Your task to perform on an android device: Go to display settings Image 0: 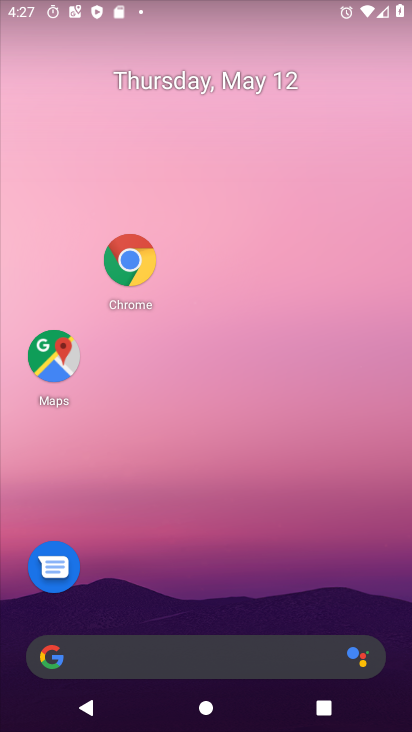
Step 0: drag from (228, 586) to (262, 238)
Your task to perform on an android device: Go to display settings Image 1: 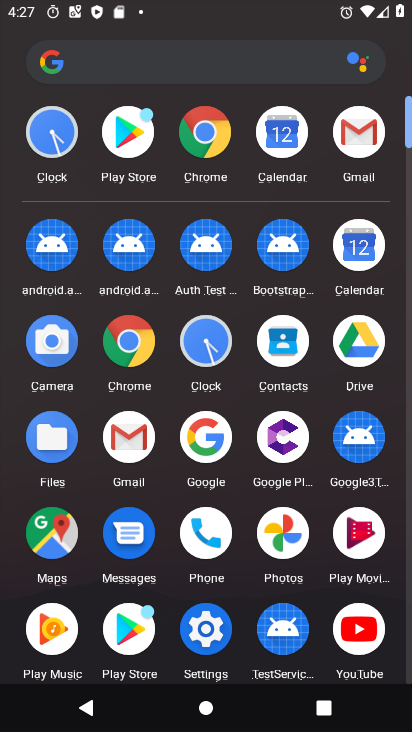
Step 1: click (201, 634)
Your task to perform on an android device: Go to display settings Image 2: 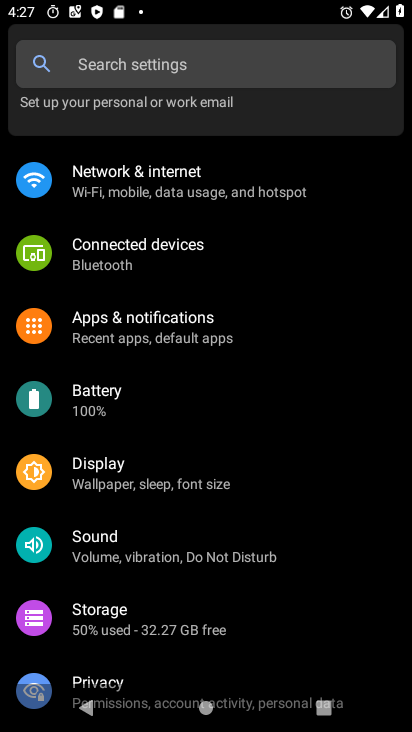
Step 2: click (134, 473)
Your task to perform on an android device: Go to display settings Image 3: 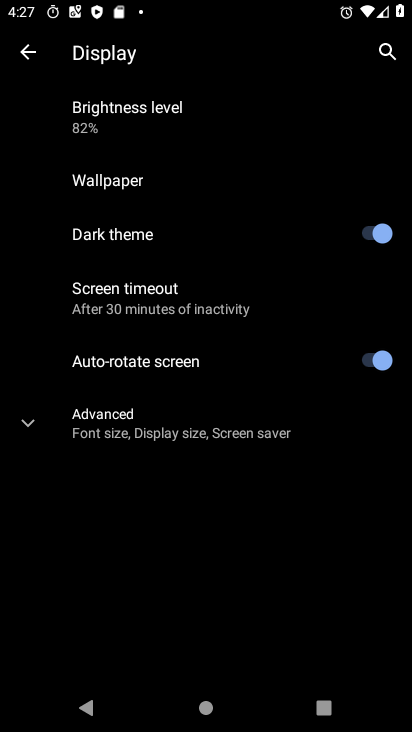
Step 3: click (128, 432)
Your task to perform on an android device: Go to display settings Image 4: 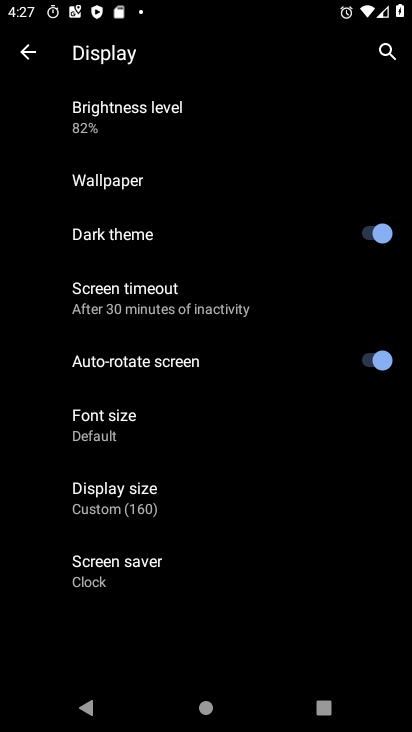
Step 4: task complete